Your task to perform on an android device: Go to network settings Image 0: 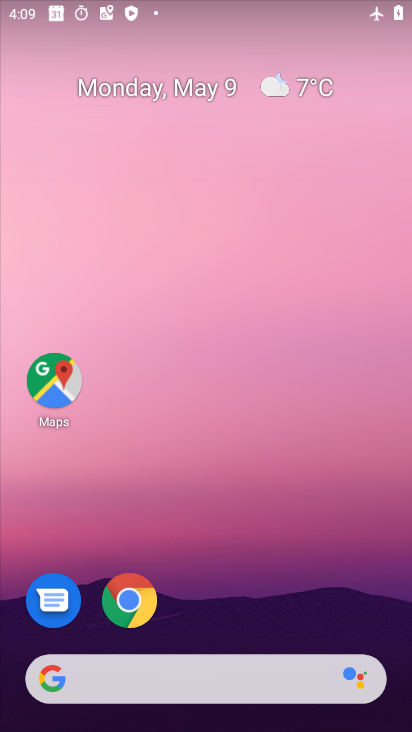
Step 0: drag from (260, 607) to (220, 155)
Your task to perform on an android device: Go to network settings Image 1: 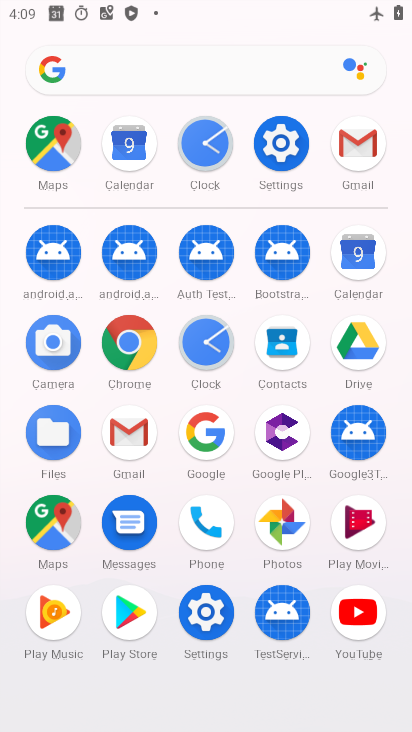
Step 1: click (282, 147)
Your task to perform on an android device: Go to network settings Image 2: 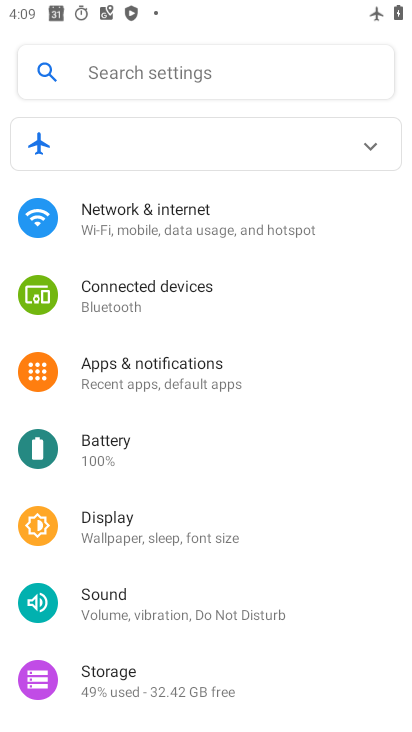
Step 2: click (229, 234)
Your task to perform on an android device: Go to network settings Image 3: 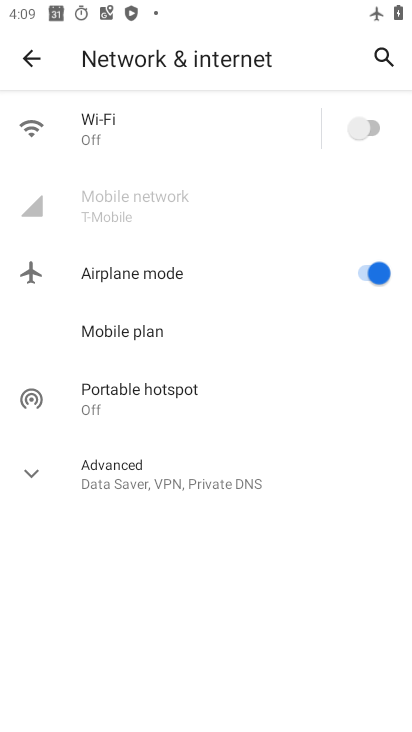
Step 3: task complete